Your task to perform on an android device: toggle airplane mode Image 0: 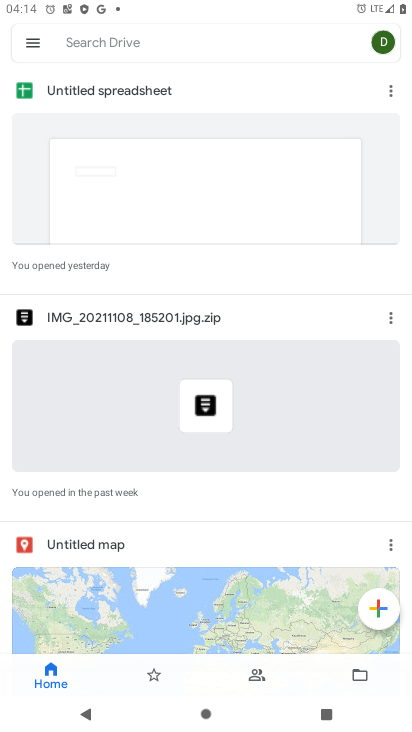
Step 0: press home button
Your task to perform on an android device: toggle airplane mode Image 1: 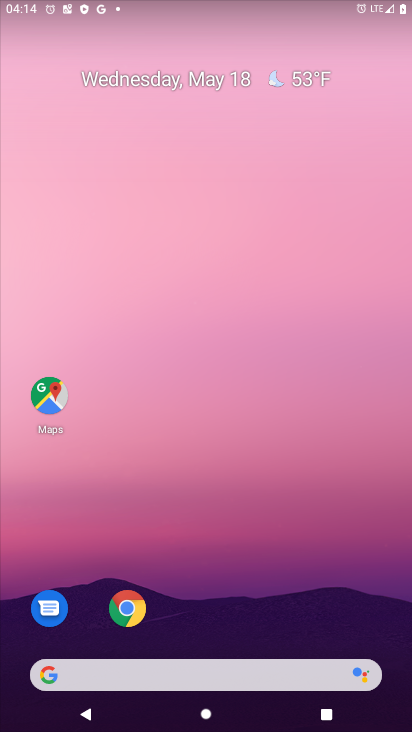
Step 1: drag from (239, 632) to (258, 0)
Your task to perform on an android device: toggle airplane mode Image 2: 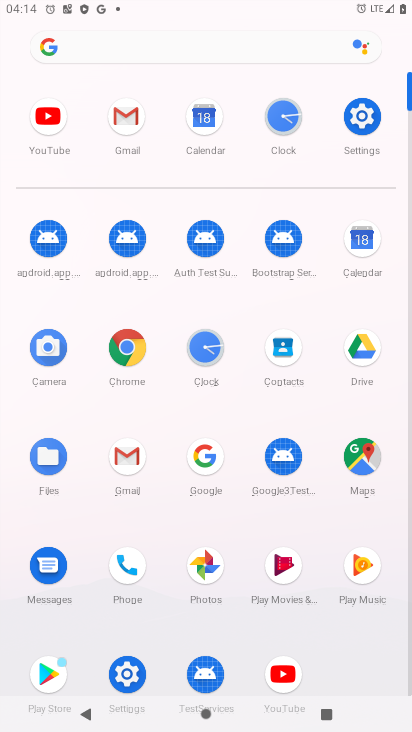
Step 2: click (360, 118)
Your task to perform on an android device: toggle airplane mode Image 3: 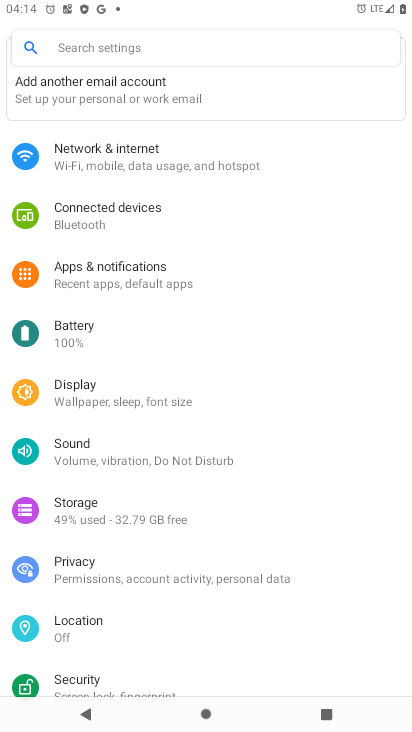
Step 3: click (95, 159)
Your task to perform on an android device: toggle airplane mode Image 4: 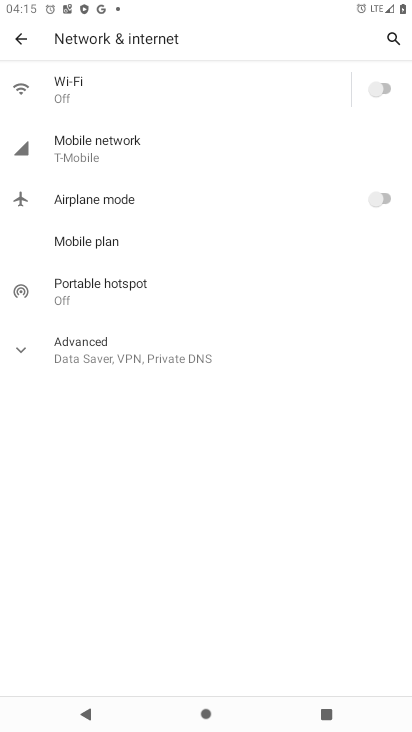
Step 4: click (372, 207)
Your task to perform on an android device: toggle airplane mode Image 5: 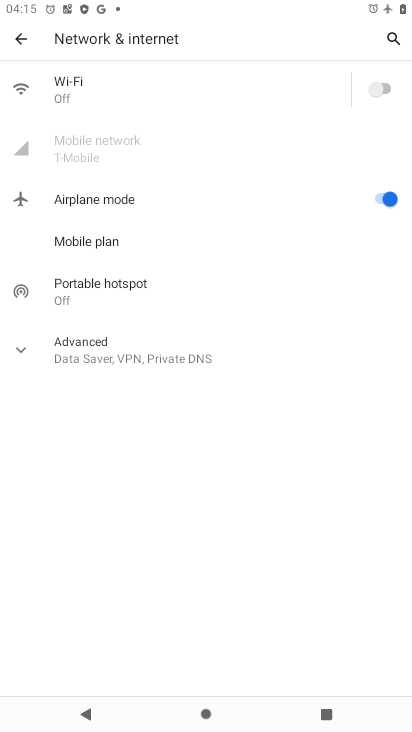
Step 5: task complete